Your task to perform on an android device: move a message to another label in the gmail app Image 0: 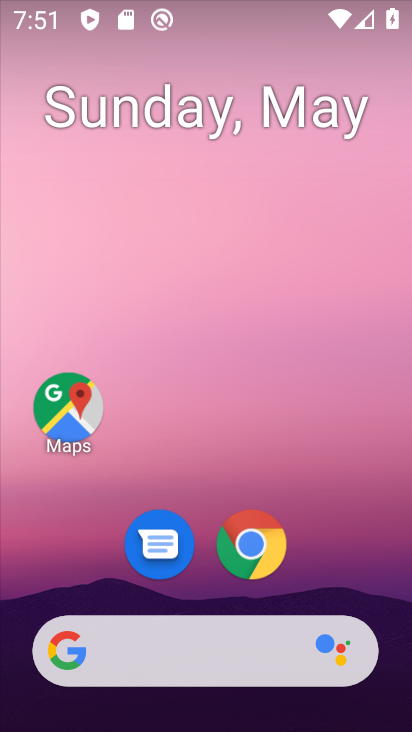
Step 0: drag from (313, 515) to (281, 10)
Your task to perform on an android device: move a message to another label in the gmail app Image 1: 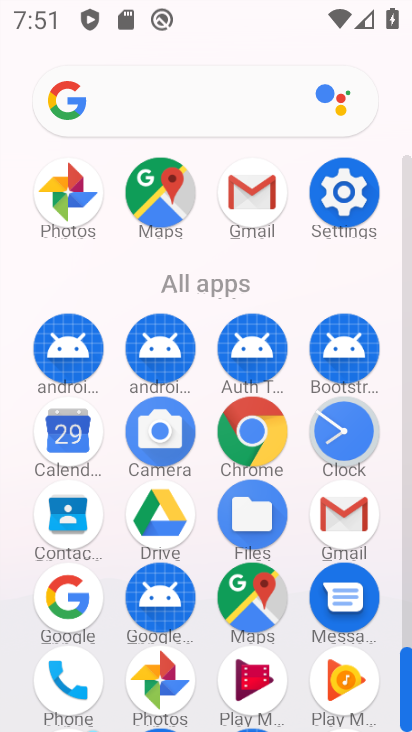
Step 1: drag from (4, 580) to (5, 201)
Your task to perform on an android device: move a message to another label in the gmail app Image 2: 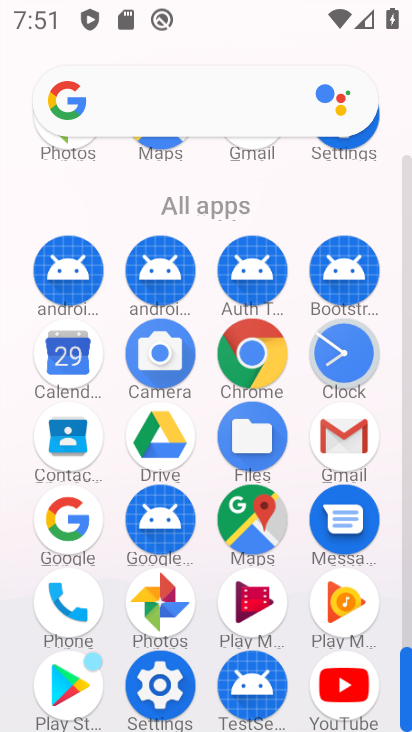
Step 2: click (344, 429)
Your task to perform on an android device: move a message to another label in the gmail app Image 3: 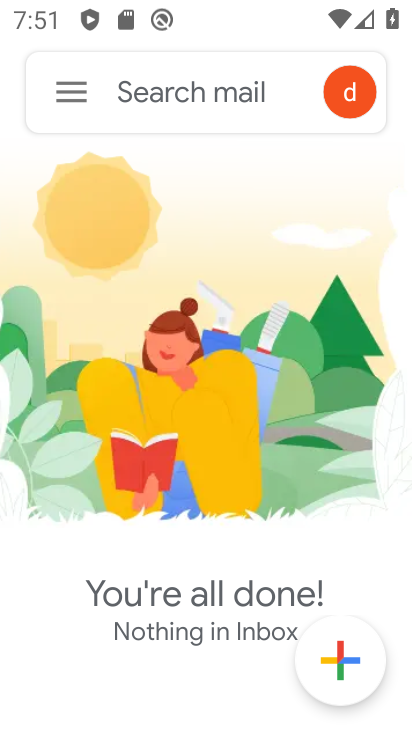
Step 3: click (75, 82)
Your task to perform on an android device: move a message to another label in the gmail app Image 4: 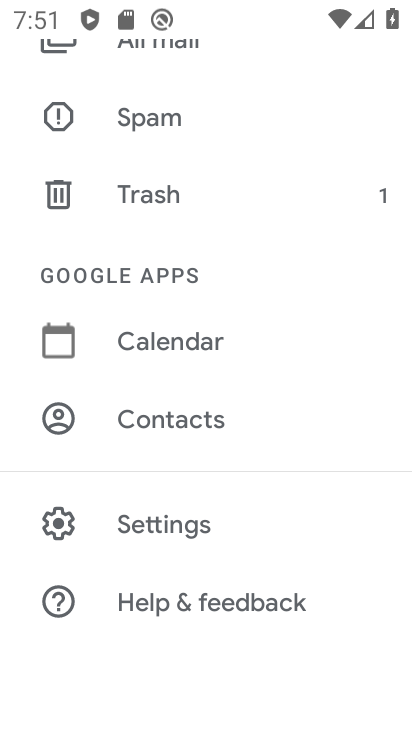
Step 4: click (165, 187)
Your task to perform on an android device: move a message to another label in the gmail app Image 5: 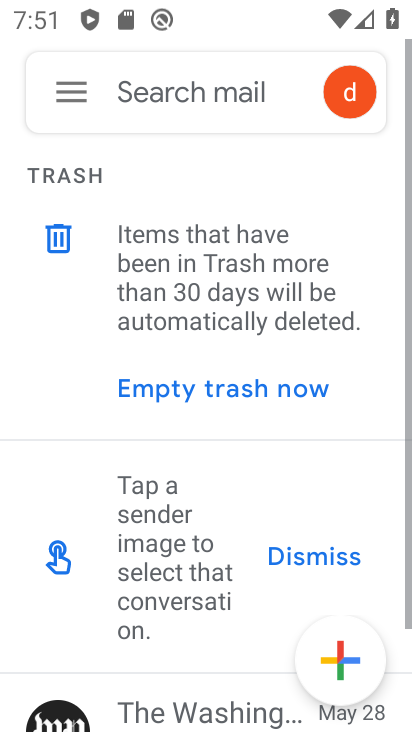
Step 5: drag from (215, 670) to (252, 177)
Your task to perform on an android device: move a message to another label in the gmail app Image 6: 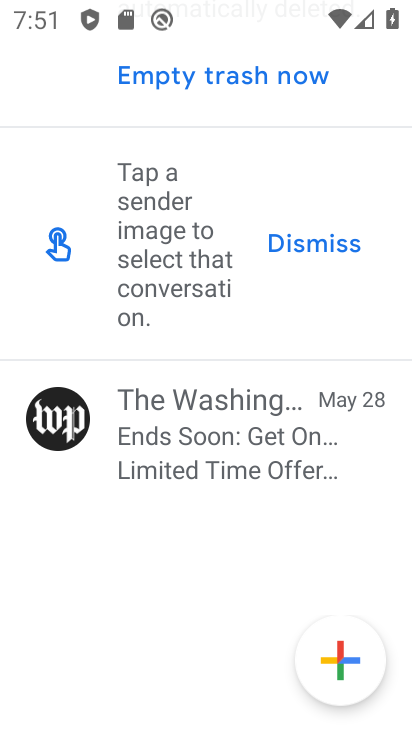
Step 6: click (228, 428)
Your task to perform on an android device: move a message to another label in the gmail app Image 7: 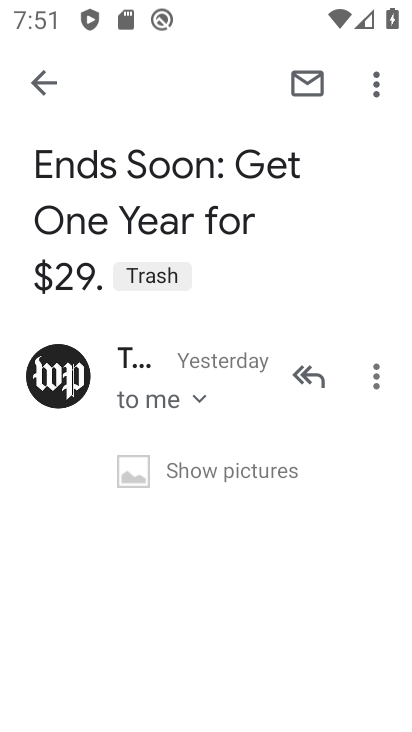
Step 7: click (148, 271)
Your task to perform on an android device: move a message to another label in the gmail app Image 8: 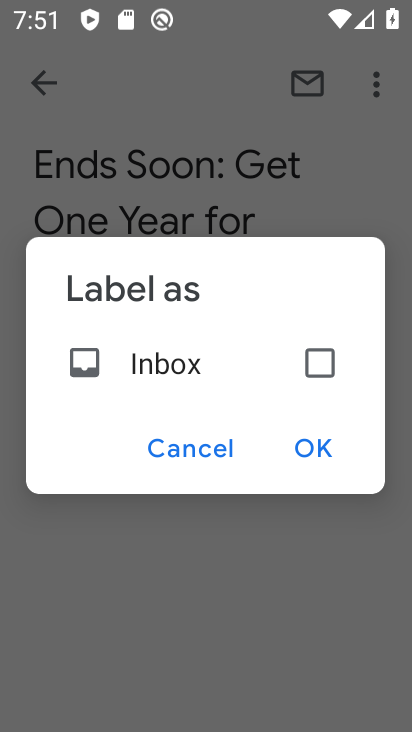
Step 8: click (320, 361)
Your task to perform on an android device: move a message to another label in the gmail app Image 9: 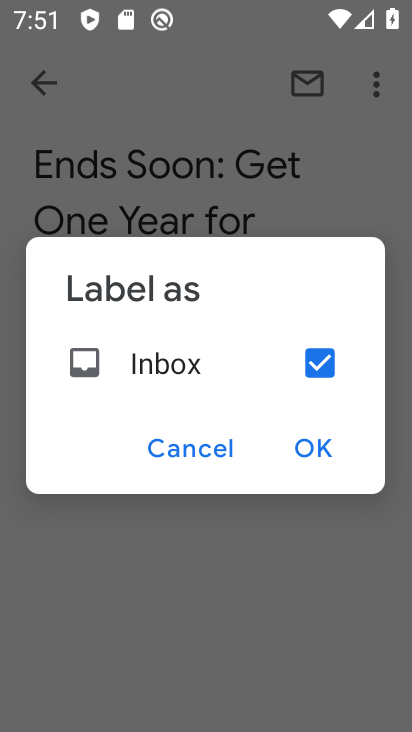
Step 9: click (319, 446)
Your task to perform on an android device: move a message to another label in the gmail app Image 10: 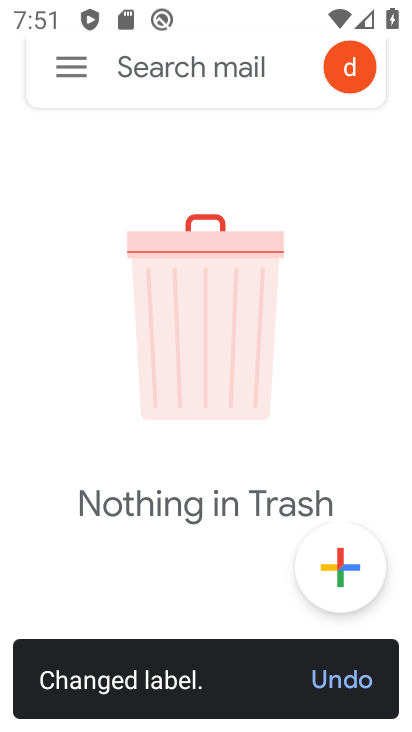
Step 10: task complete